Your task to perform on an android device: turn on data saver in the chrome app Image 0: 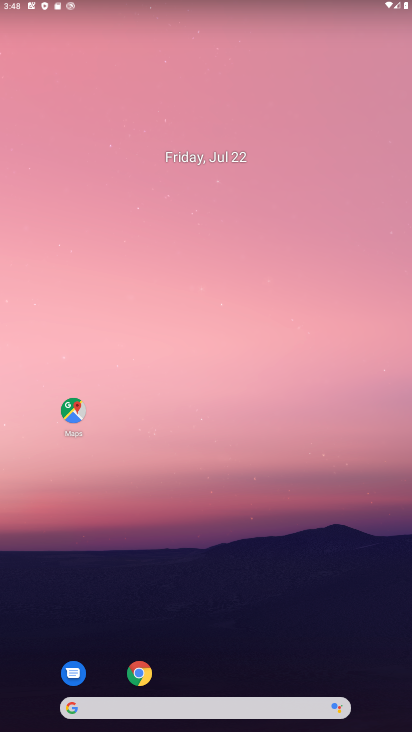
Step 0: click (138, 673)
Your task to perform on an android device: turn on data saver in the chrome app Image 1: 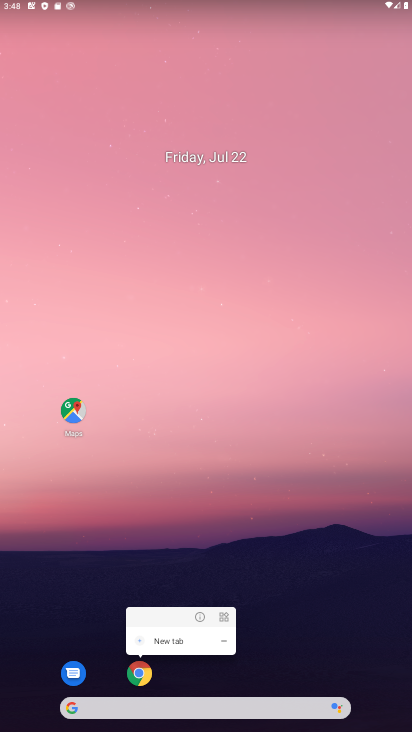
Step 1: click (134, 672)
Your task to perform on an android device: turn on data saver in the chrome app Image 2: 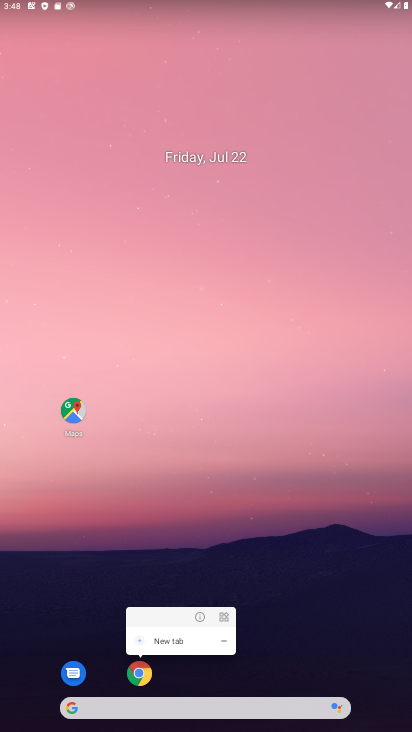
Step 2: click (137, 669)
Your task to perform on an android device: turn on data saver in the chrome app Image 3: 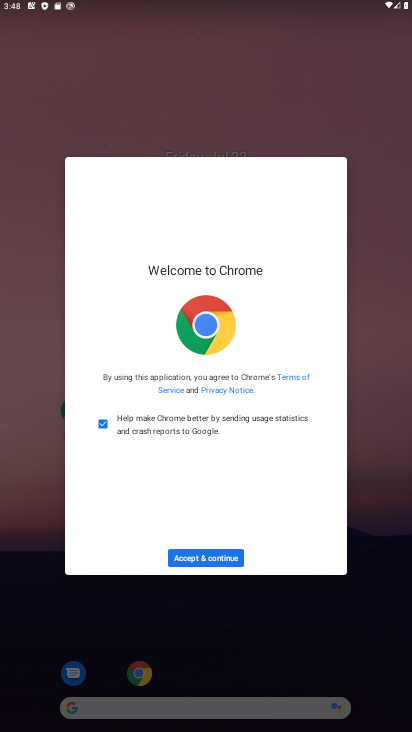
Step 3: click (206, 560)
Your task to perform on an android device: turn on data saver in the chrome app Image 4: 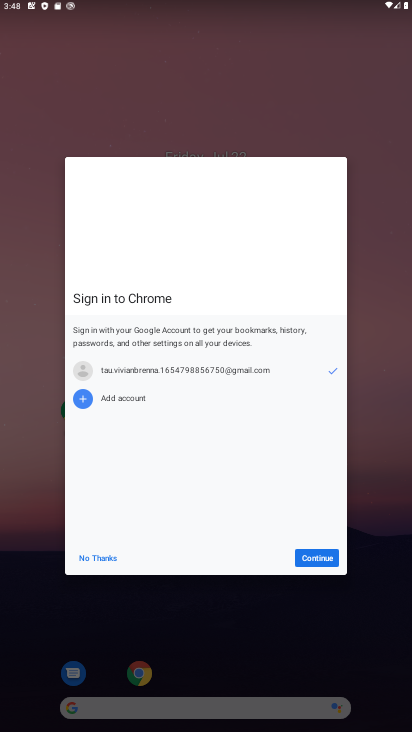
Step 4: click (316, 557)
Your task to perform on an android device: turn on data saver in the chrome app Image 5: 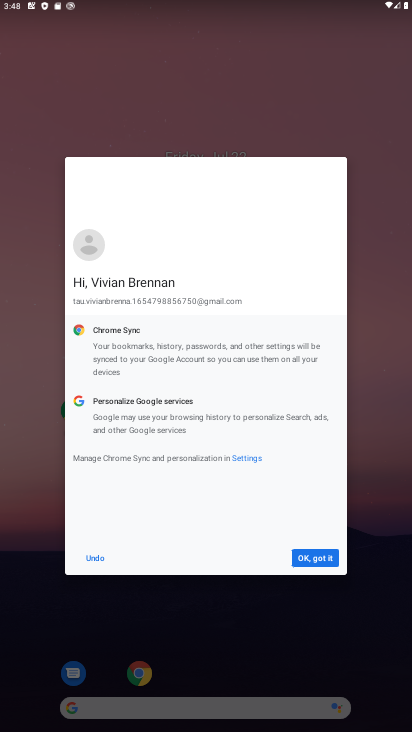
Step 5: click (311, 554)
Your task to perform on an android device: turn on data saver in the chrome app Image 6: 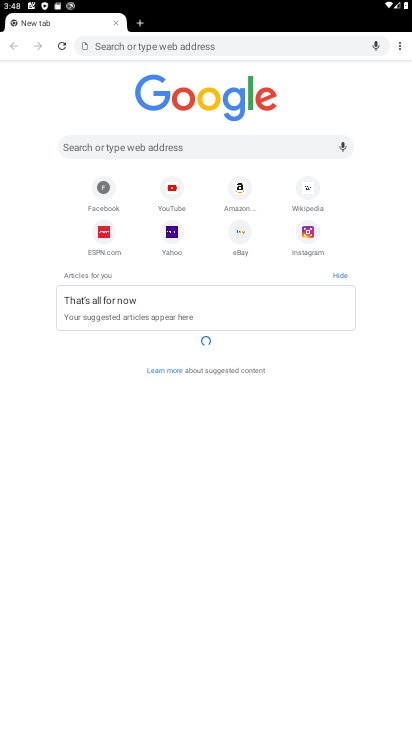
Step 6: click (399, 43)
Your task to perform on an android device: turn on data saver in the chrome app Image 7: 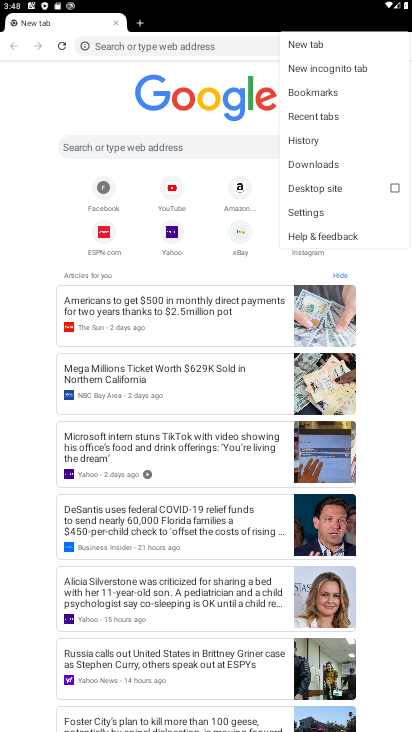
Step 7: click (309, 211)
Your task to perform on an android device: turn on data saver in the chrome app Image 8: 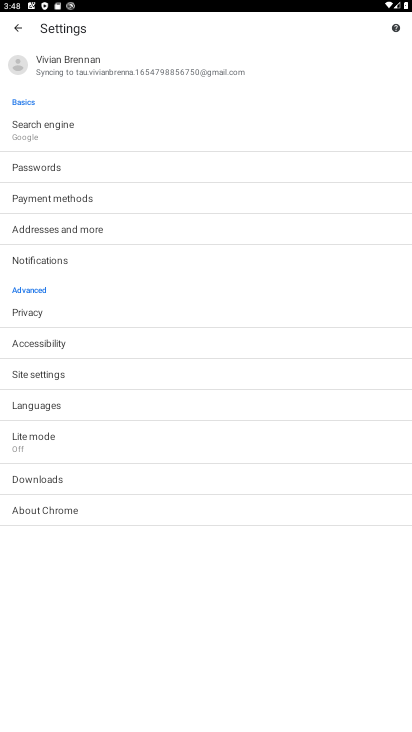
Step 8: click (93, 449)
Your task to perform on an android device: turn on data saver in the chrome app Image 9: 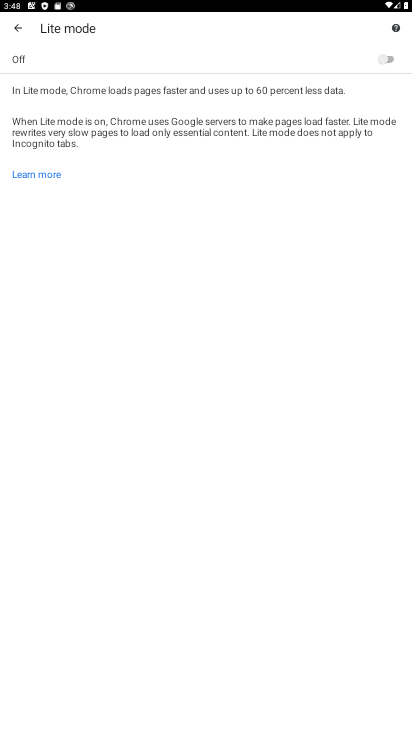
Step 9: click (387, 57)
Your task to perform on an android device: turn on data saver in the chrome app Image 10: 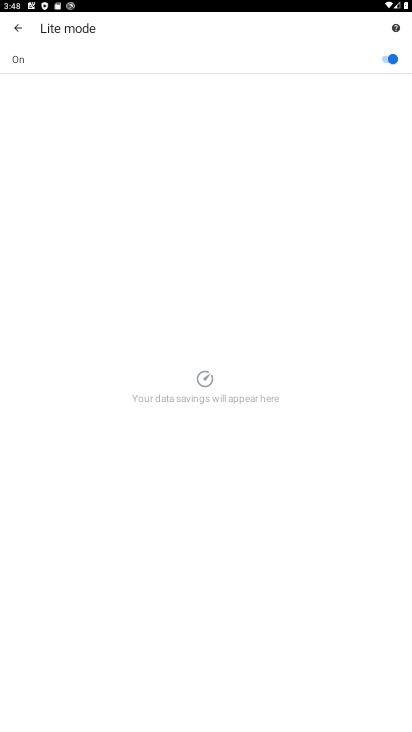
Step 10: task complete